Your task to perform on an android device: turn on wifi Image 0: 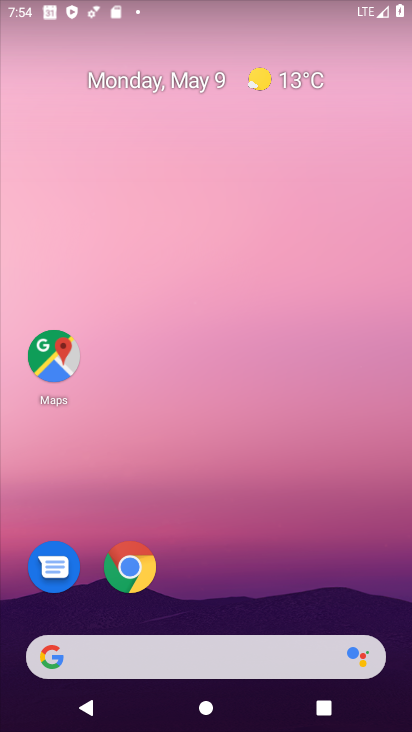
Step 0: drag from (300, 568) to (295, 3)
Your task to perform on an android device: turn on wifi Image 1: 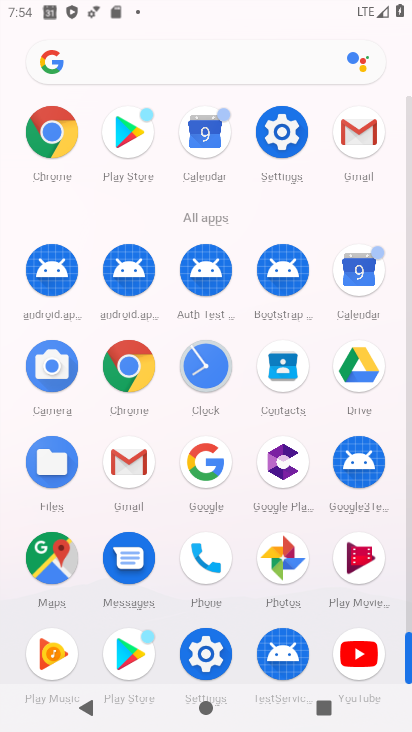
Step 1: click (279, 127)
Your task to perform on an android device: turn on wifi Image 2: 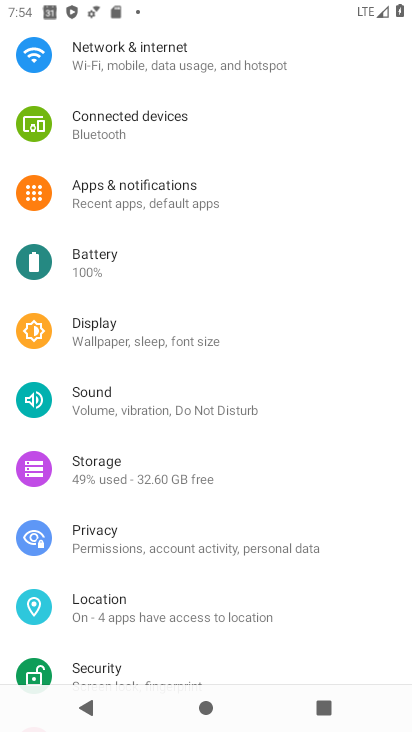
Step 2: drag from (262, 162) to (244, 365)
Your task to perform on an android device: turn on wifi Image 3: 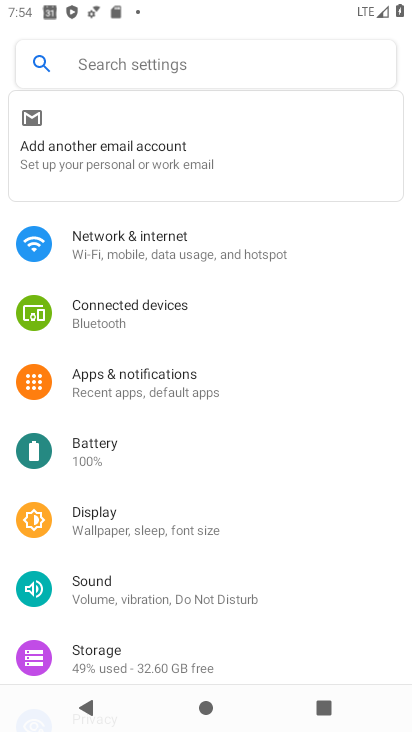
Step 3: click (186, 237)
Your task to perform on an android device: turn on wifi Image 4: 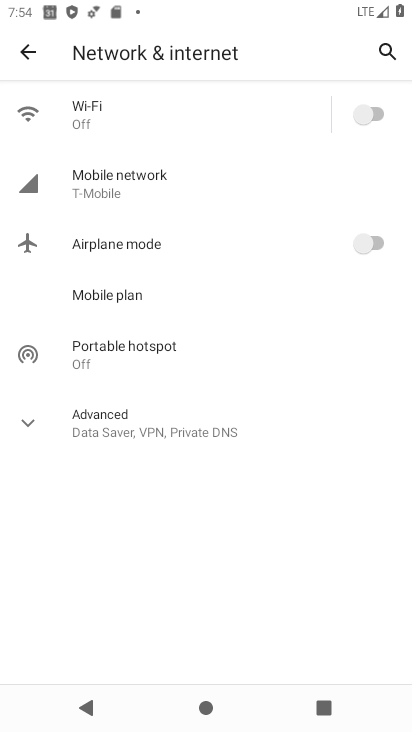
Step 4: click (377, 112)
Your task to perform on an android device: turn on wifi Image 5: 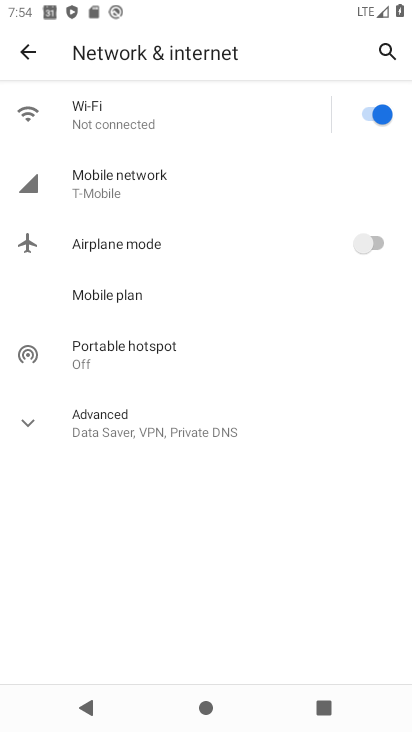
Step 5: task complete